Your task to perform on an android device: turn on data saver in the chrome app Image 0: 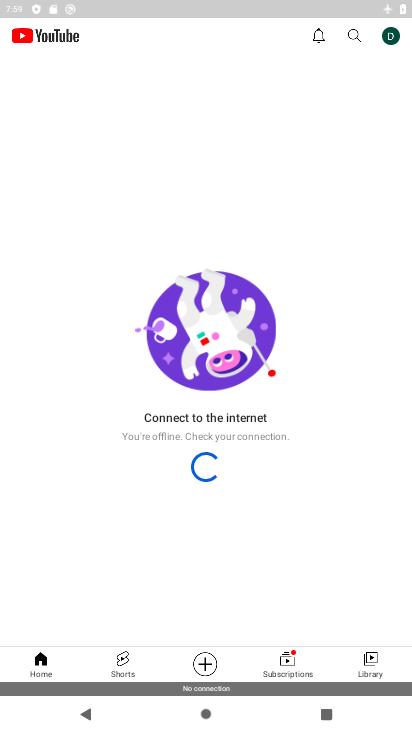
Step 0: drag from (356, 573) to (362, 435)
Your task to perform on an android device: turn on data saver in the chrome app Image 1: 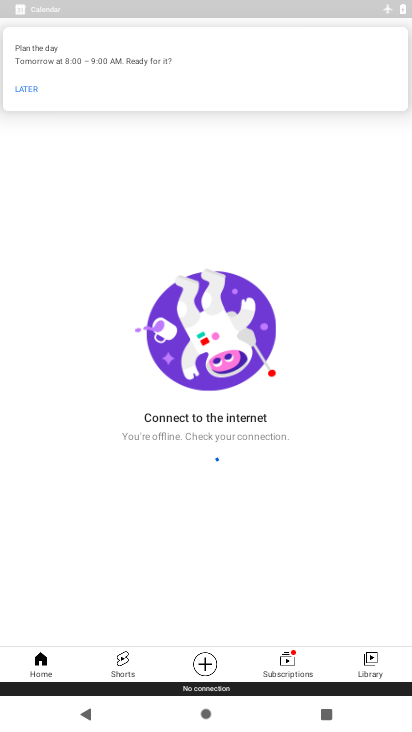
Step 1: press home button
Your task to perform on an android device: turn on data saver in the chrome app Image 2: 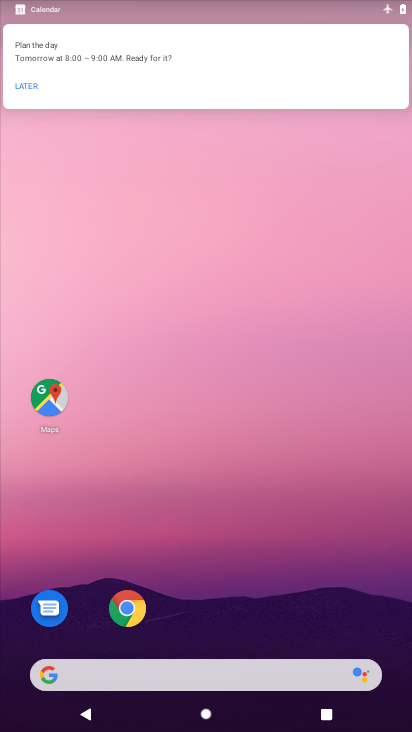
Step 2: drag from (360, 620) to (345, 270)
Your task to perform on an android device: turn on data saver in the chrome app Image 3: 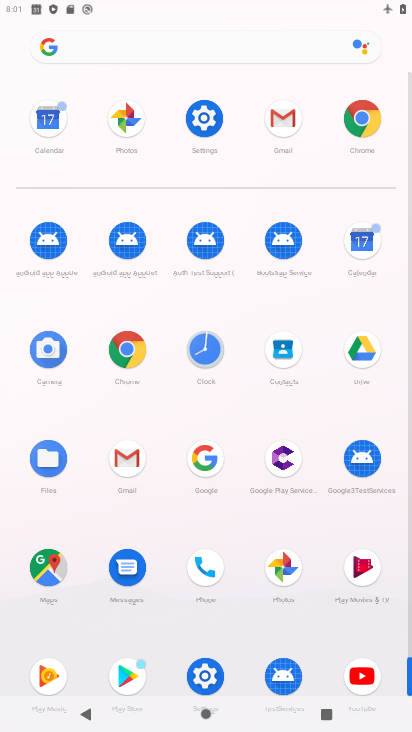
Step 3: click (122, 361)
Your task to perform on an android device: turn on data saver in the chrome app Image 4: 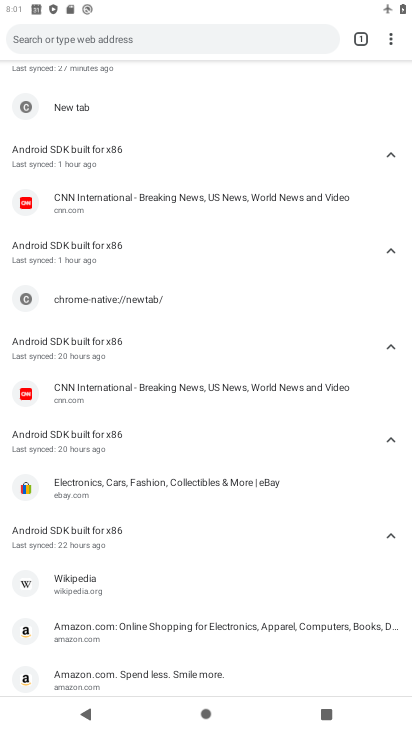
Step 4: drag from (163, 545) to (239, 289)
Your task to perform on an android device: turn on data saver in the chrome app Image 5: 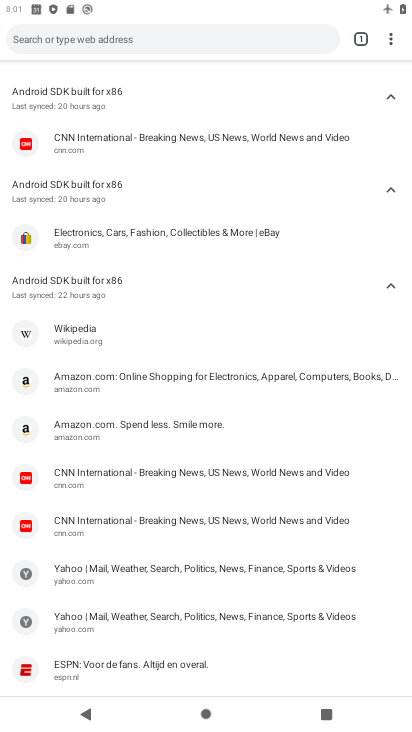
Step 5: drag from (389, 40) to (257, 321)
Your task to perform on an android device: turn on data saver in the chrome app Image 6: 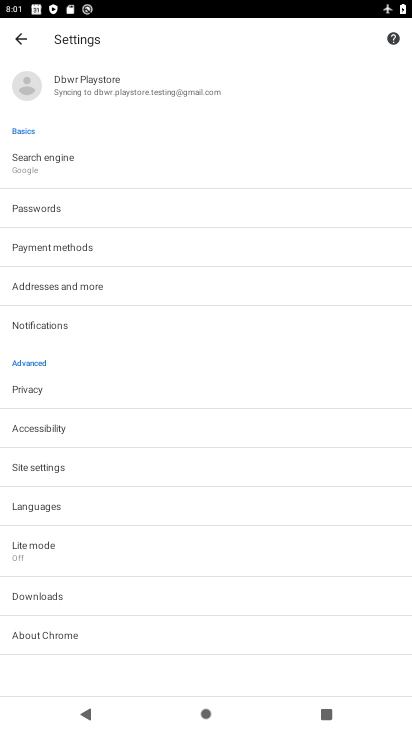
Step 6: click (107, 555)
Your task to perform on an android device: turn on data saver in the chrome app Image 7: 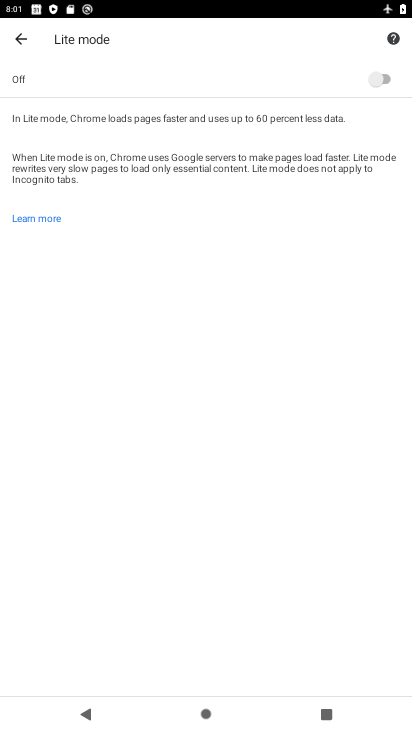
Step 7: click (382, 81)
Your task to perform on an android device: turn on data saver in the chrome app Image 8: 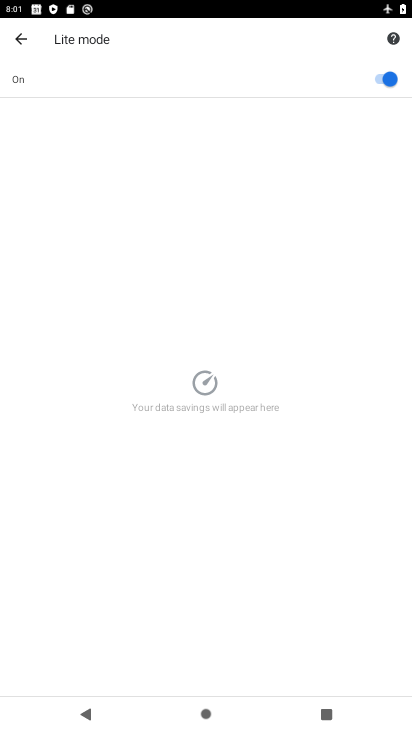
Step 8: task complete